Your task to perform on an android device: What's US dollar exchange rate against the South Korean Won? Image 0: 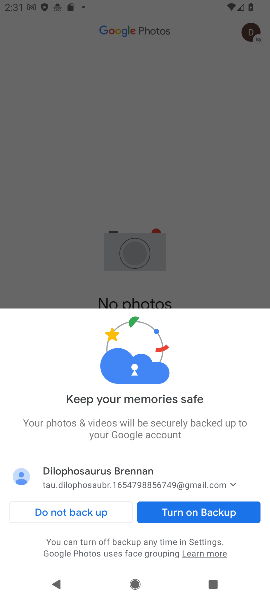
Step 0: press home button
Your task to perform on an android device: What's US dollar exchange rate against the South Korean Won? Image 1: 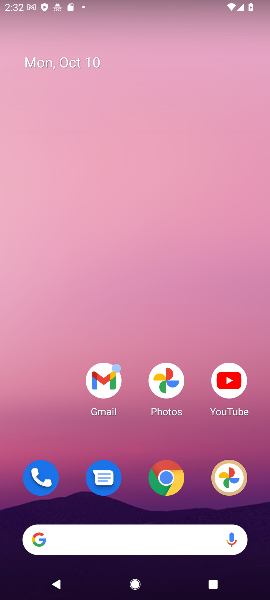
Step 1: click (171, 481)
Your task to perform on an android device: What's US dollar exchange rate against the South Korean Won? Image 2: 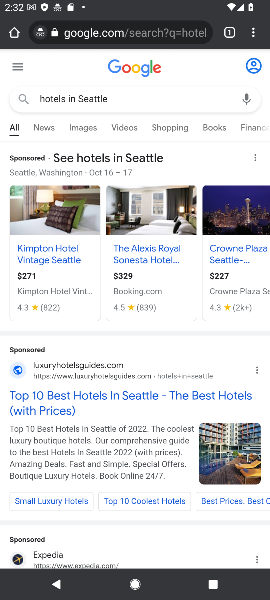
Step 2: click (129, 90)
Your task to perform on an android device: What's US dollar exchange rate against the South Korean Won? Image 3: 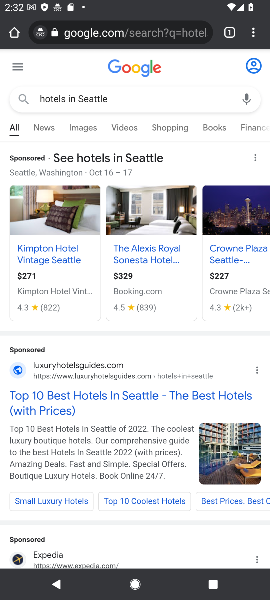
Step 3: click (116, 97)
Your task to perform on an android device: What's US dollar exchange rate against the South Korean Won? Image 4: 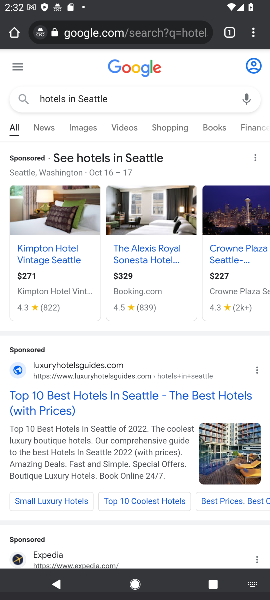
Step 4: click (116, 97)
Your task to perform on an android device: What's US dollar exchange rate against the South Korean Won? Image 5: 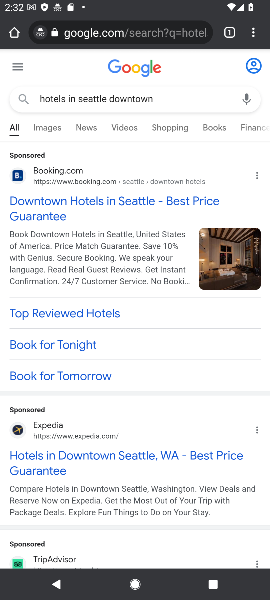
Step 5: click (170, 99)
Your task to perform on an android device: What's US dollar exchange rate against the South Korean Won? Image 6: 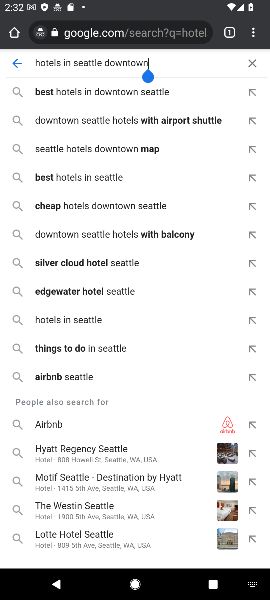
Step 6: click (123, 29)
Your task to perform on an android device: What's US dollar exchange rate against the South Korean Won? Image 7: 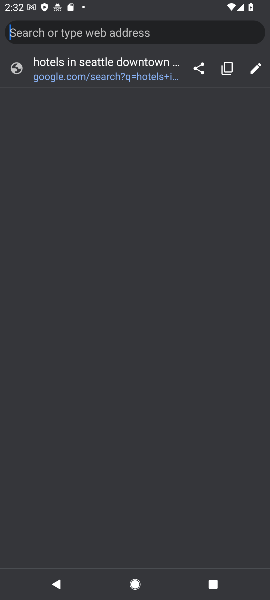
Step 7: type "What's US dollar exchange rate against the South Korean Won?"
Your task to perform on an android device: What's US dollar exchange rate against the South Korean Won? Image 8: 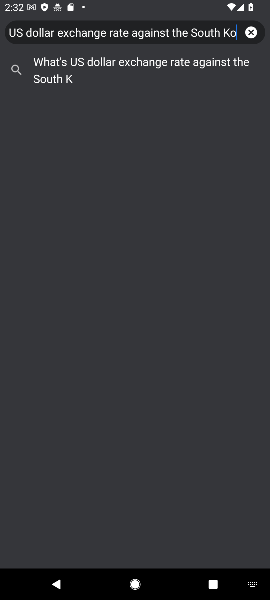
Step 8: type ""
Your task to perform on an android device: What's US dollar exchange rate against the South Korean Won? Image 9: 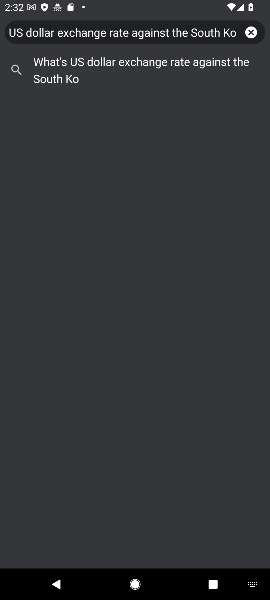
Step 9: click (145, 79)
Your task to perform on an android device: What's US dollar exchange rate against the South Korean Won? Image 10: 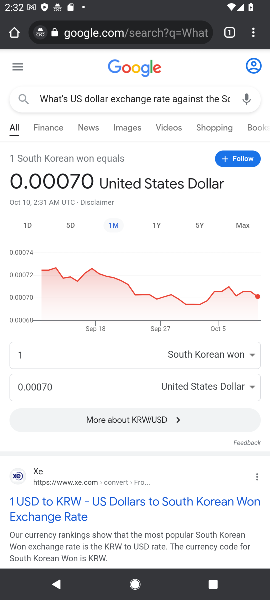
Step 10: task complete